Your task to perform on an android device: Is it going to rain tomorrow? Image 0: 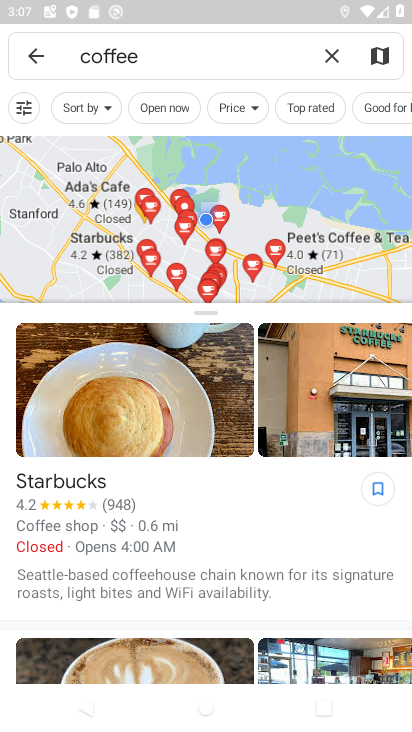
Step 0: press home button
Your task to perform on an android device: Is it going to rain tomorrow? Image 1: 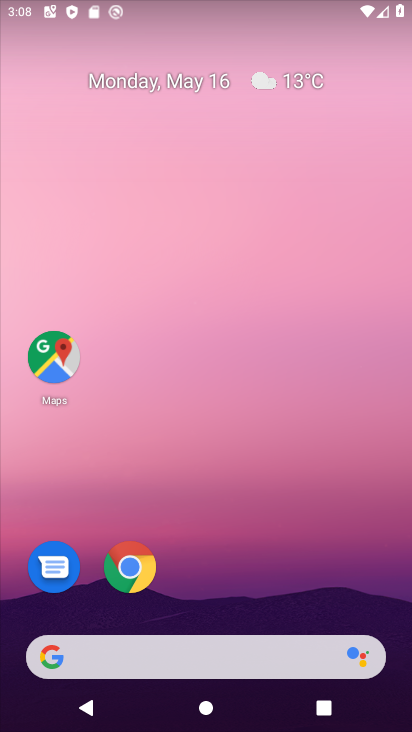
Step 1: click (121, 566)
Your task to perform on an android device: Is it going to rain tomorrow? Image 2: 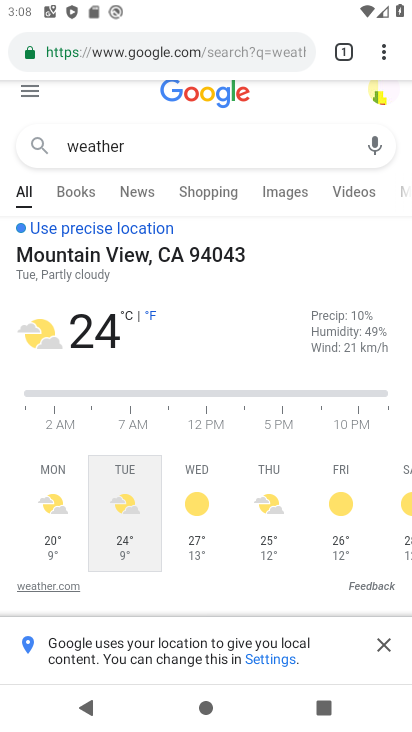
Step 2: press home button
Your task to perform on an android device: Is it going to rain tomorrow? Image 3: 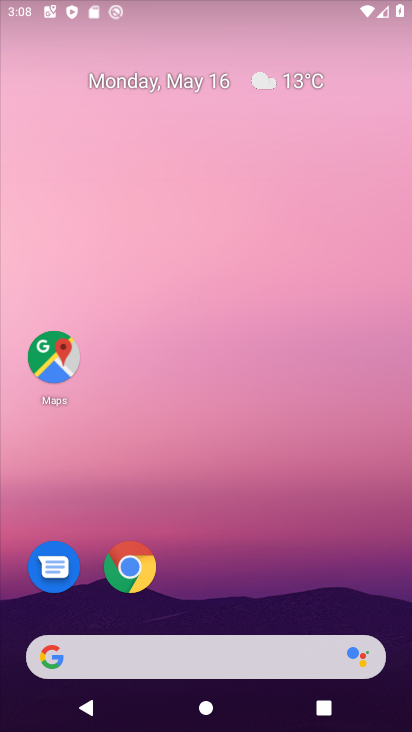
Step 3: click (320, 88)
Your task to perform on an android device: Is it going to rain tomorrow? Image 4: 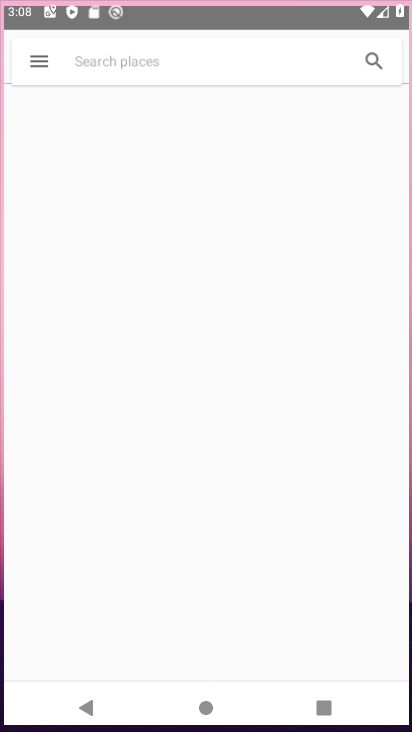
Step 4: click (315, 82)
Your task to perform on an android device: Is it going to rain tomorrow? Image 5: 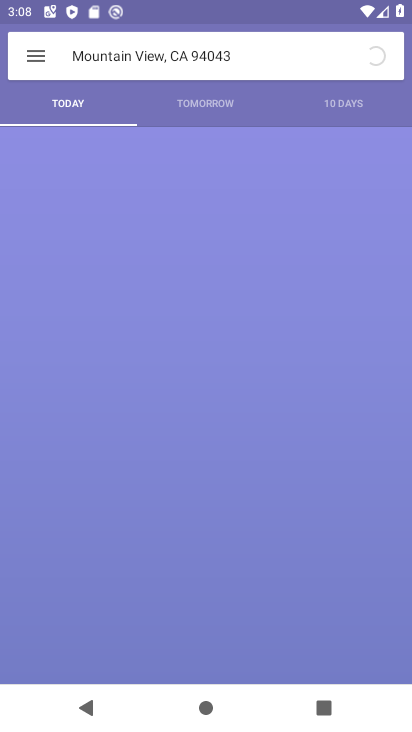
Step 5: click (186, 101)
Your task to perform on an android device: Is it going to rain tomorrow? Image 6: 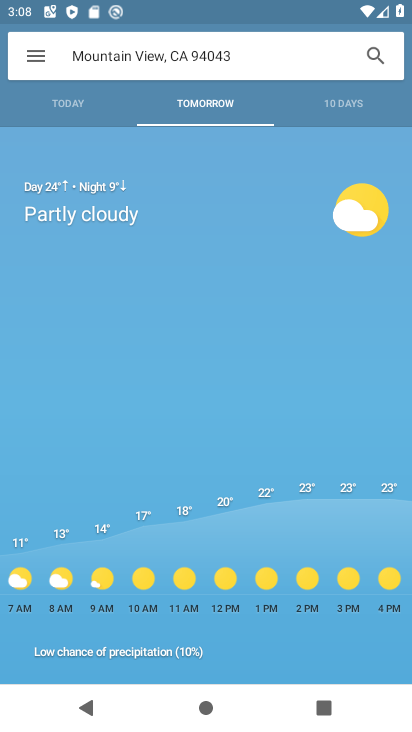
Step 6: task complete